Your task to perform on an android device: turn on location history Image 0: 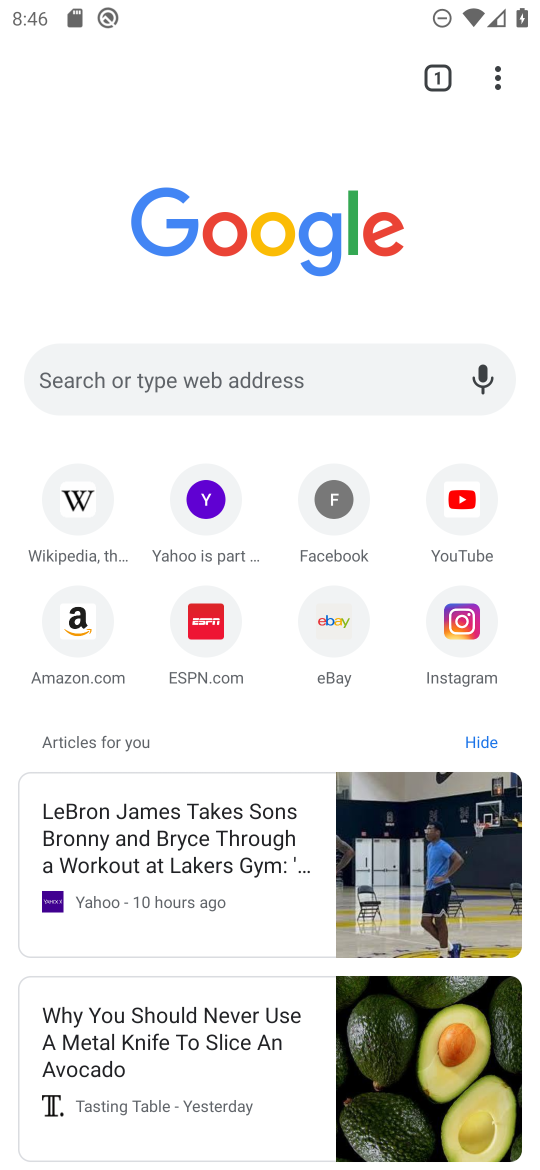
Step 0: press home button
Your task to perform on an android device: turn on location history Image 1: 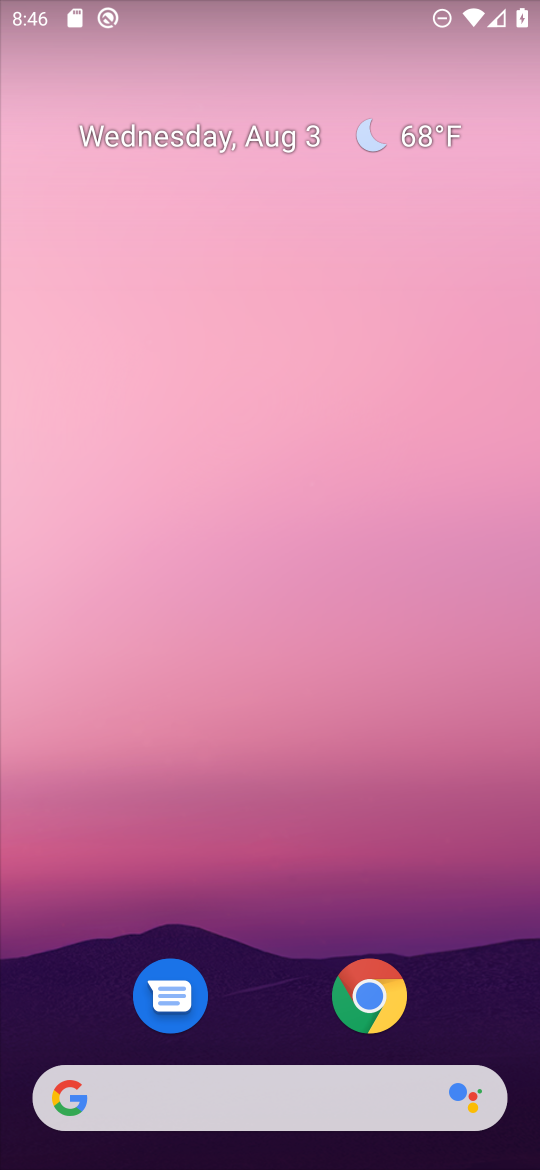
Step 1: drag from (283, 901) to (283, 0)
Your task to perform on an android device: turn on location history Image 2: 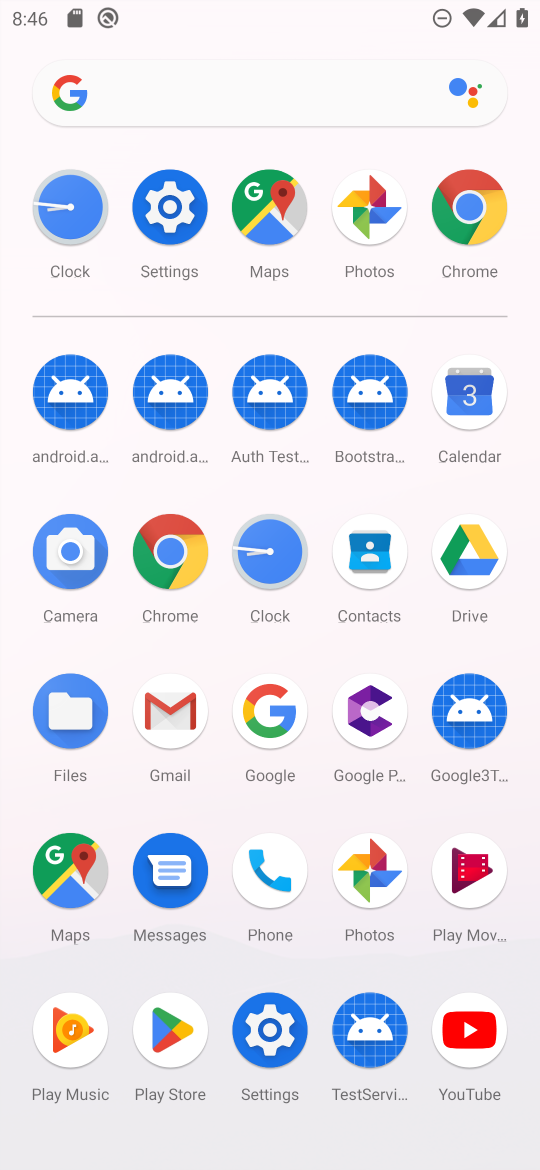
Step 2: click (170, 204)
Your task to perform on an android device: turn on location history Image 3: 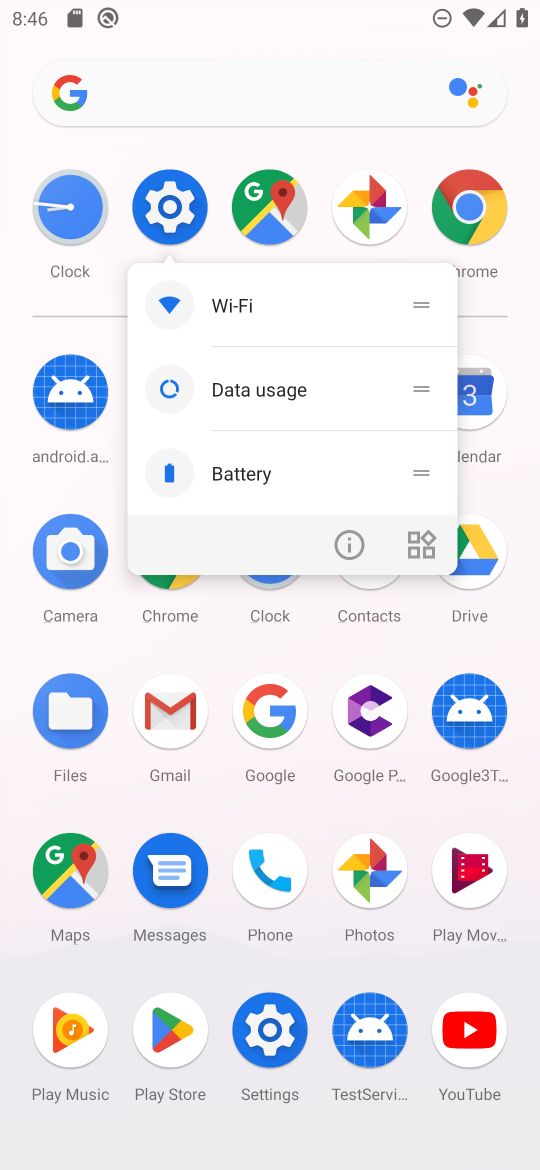
Step 3: click (170, 204)
Your task to perform on an android device: turn on location history Image 4: 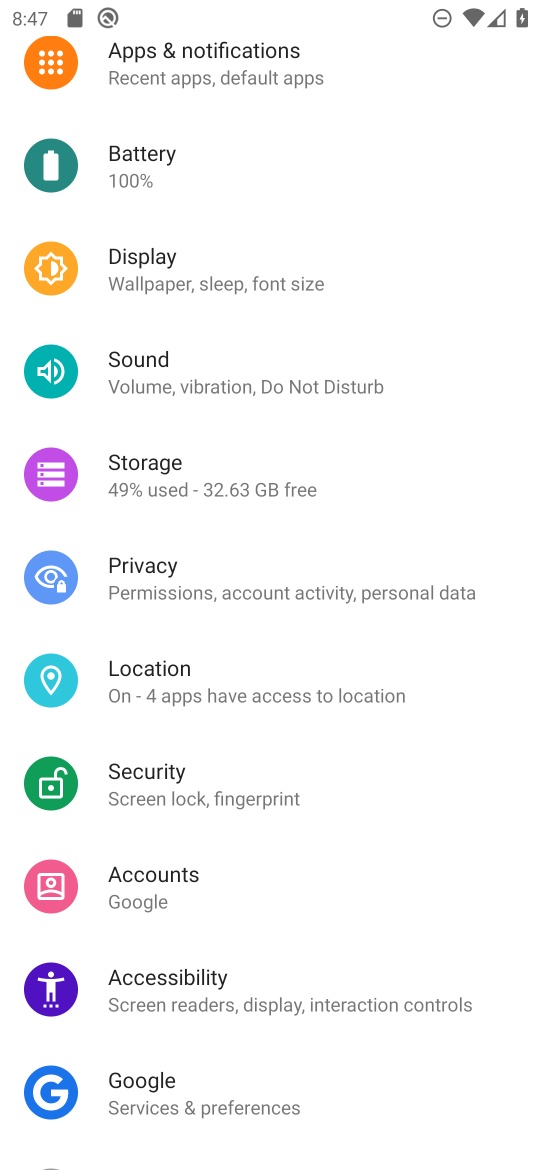
Step 4: click (274, 690)
Your task to perform on an android device: turn on location history Image 5: 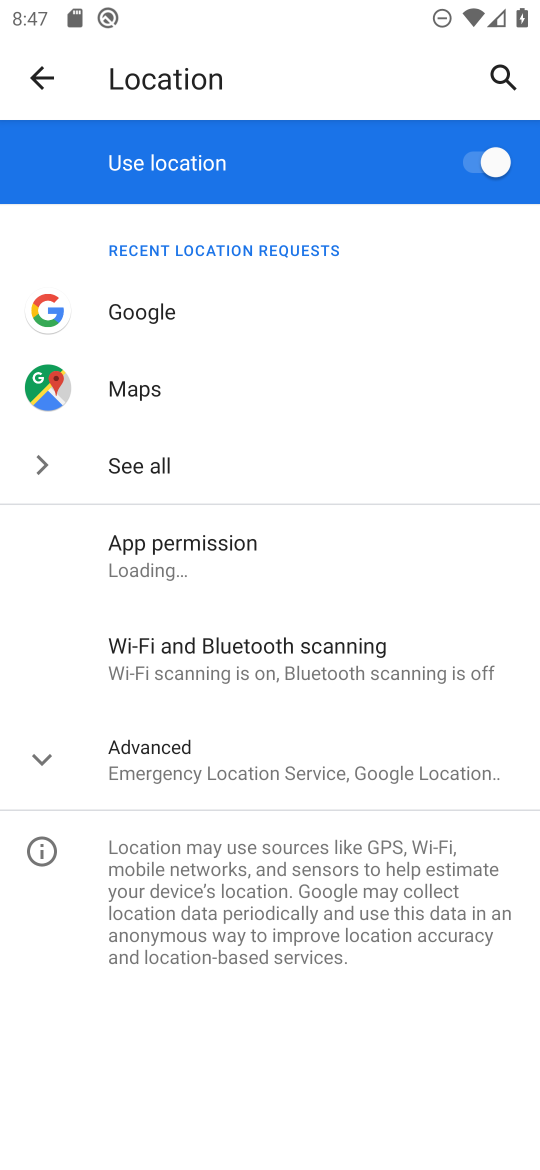
Step 5: click (45, 758)
Your task to perform on an android device: turn on location history Image 6: 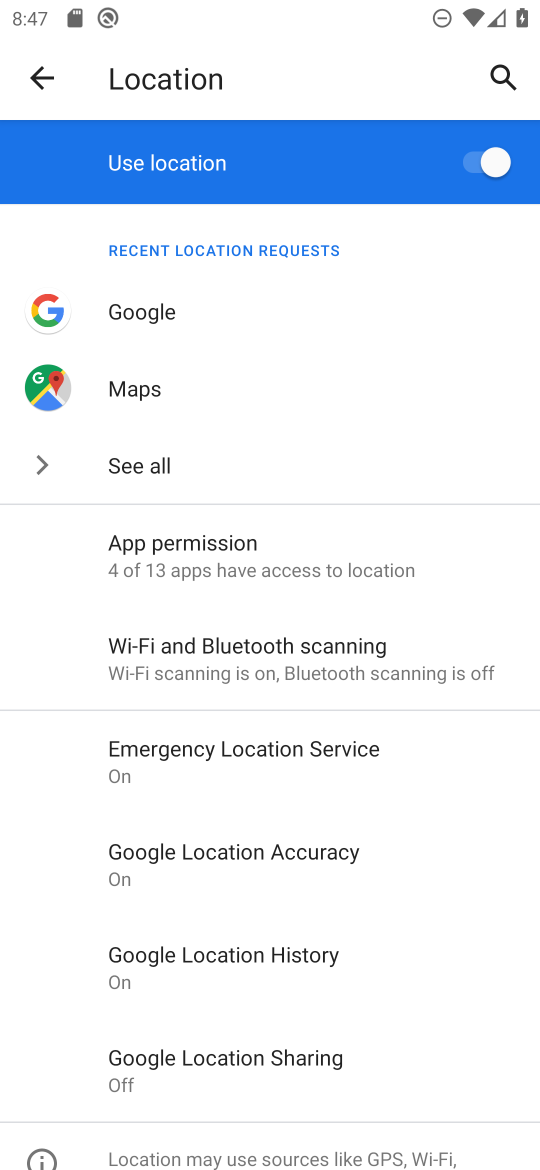
Step 6: task complete